Your task to perform on an android device: Go to battery settings Image 0: 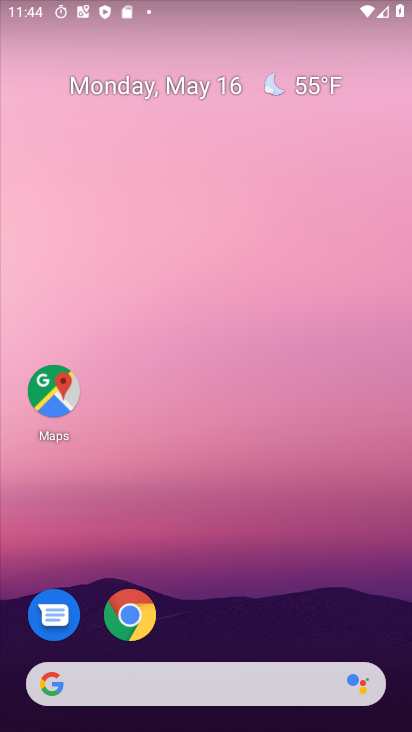
Step 0: drag from (237, 636) to (243, 190)
Your task to perform on an android device: Go to battery settings Image 1: 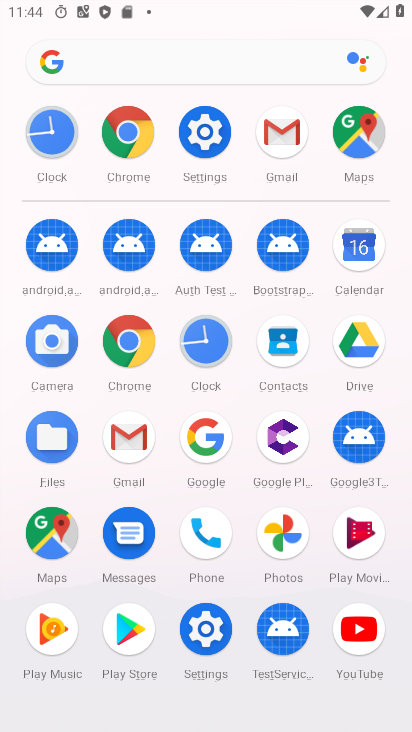
Step 1: click (209, 134)
Your task to perform on an android device: Go to battery settings Image 2: 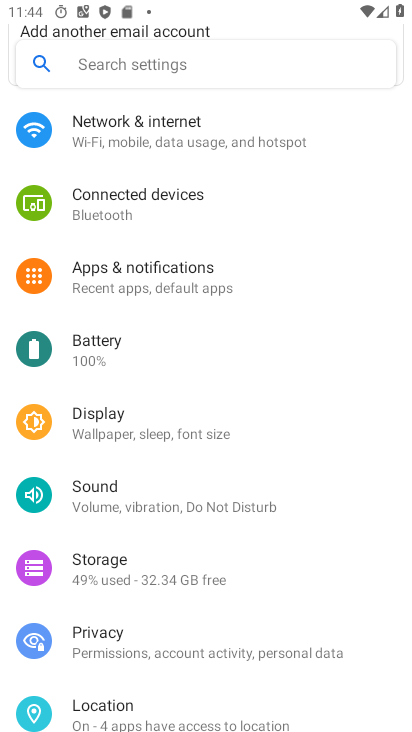
Step 2: click (90, 346)
Your task to perform on an android device: Go to battery settings Image 3: 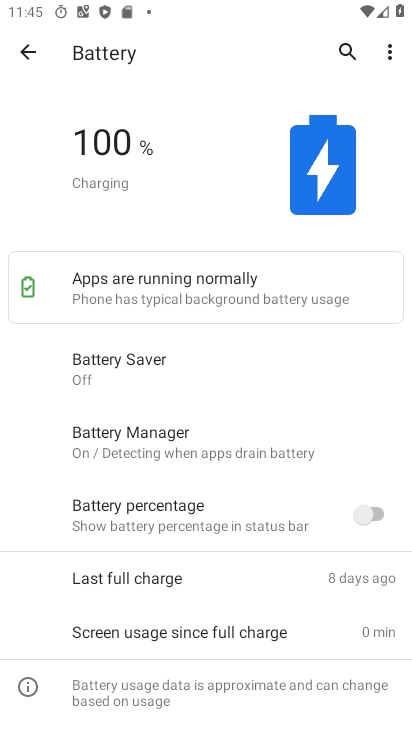
Step 3: task complete